Your task to perform on an android device: choose inbox layout in the gmail app Image 0: 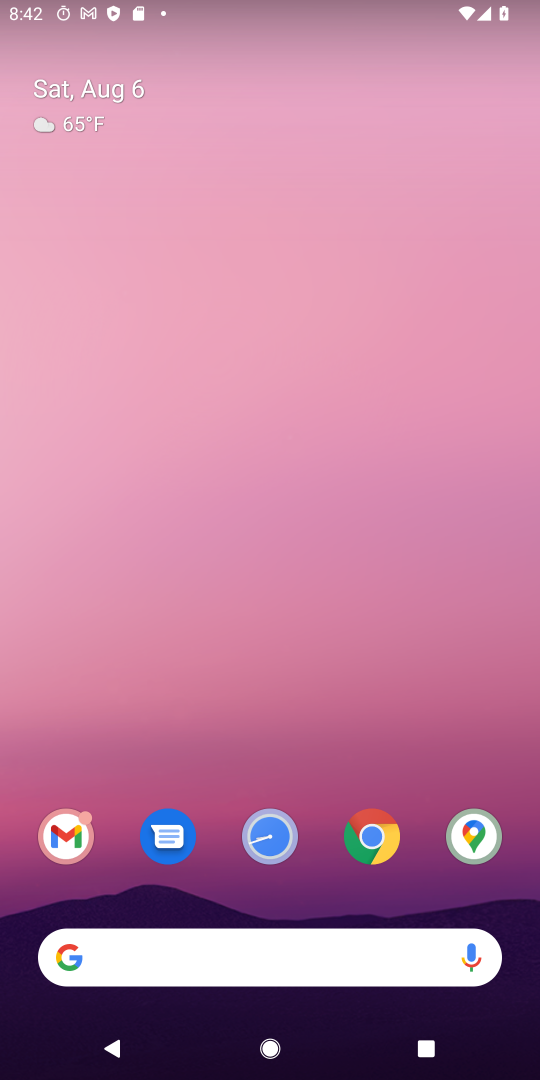
Step 0: drag from (418, 897) to (334, 76)
Your task to perform on an android device: choose inbox layout in the gmail app Image 1: 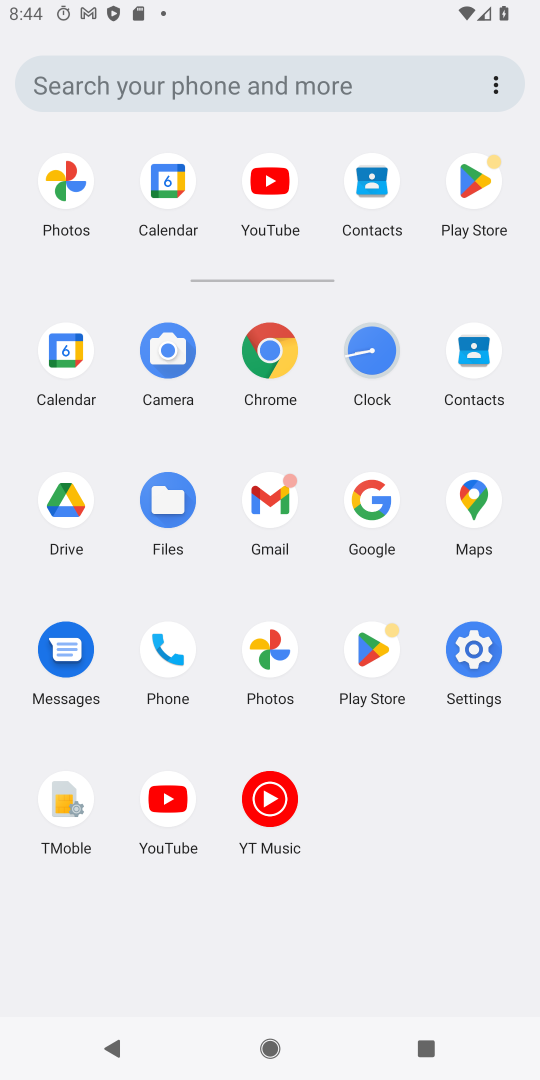
Step 1: click (267, 514)
Your task to perform on an android device: choose inbox layout in the gmail app Image 2: 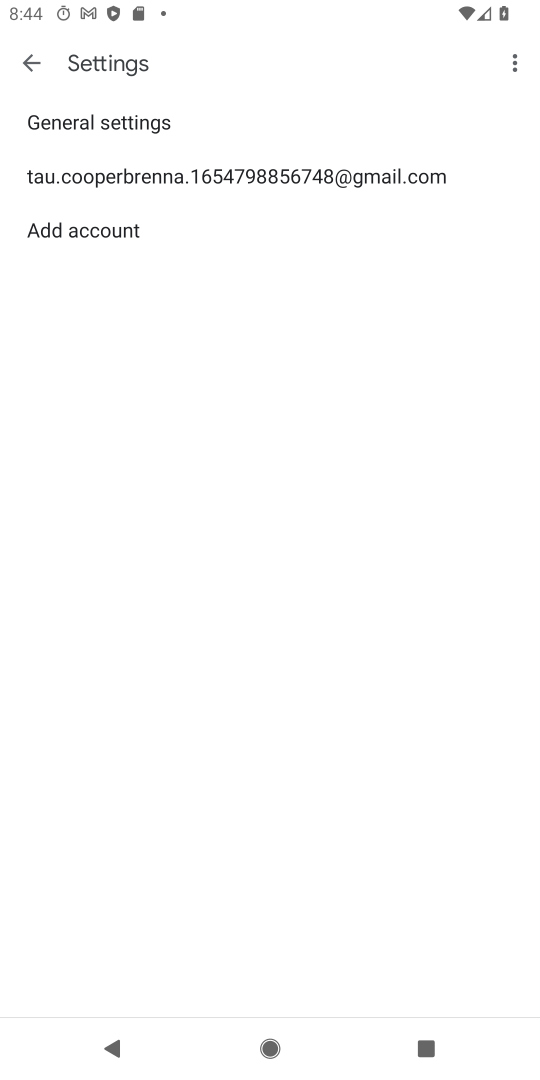
Step 2: task complete